Your task to perform on an android device: check out phone information Image 0: 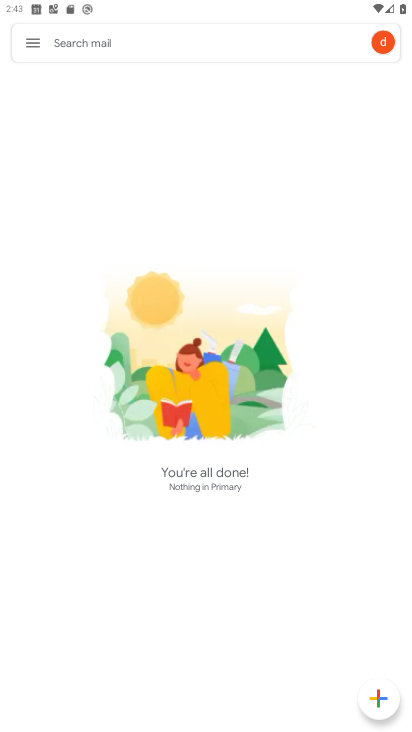
Step 0: press home button
Your task to perform on an android device: check out phone information Image 1: 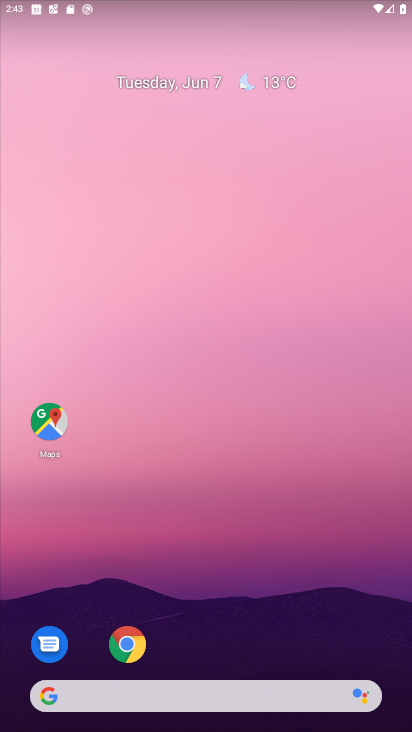
Step 1: click (220, 61)
Your task to perform on an android device: check out phone information Image 2: 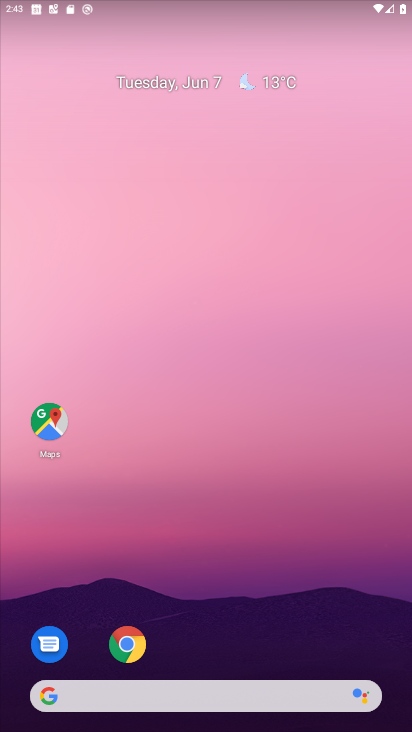
Step 2: drag from (232, 664) to (214, 80)
Your task to perform on an android device: check out phone information Image 3: 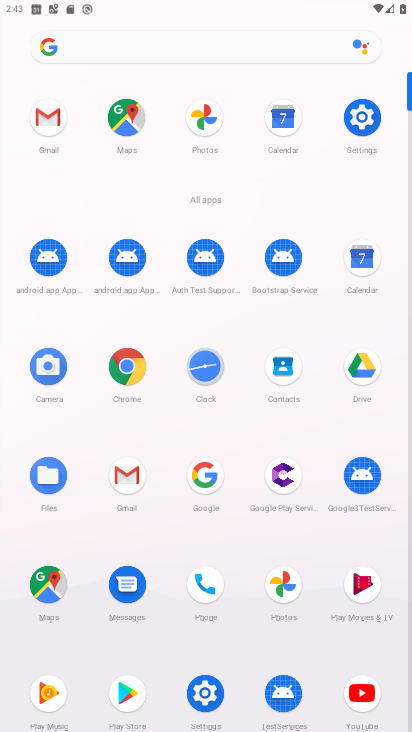
Step 3: click (360, 112)
Your task to perform on an android device: check out phone information Image 4: 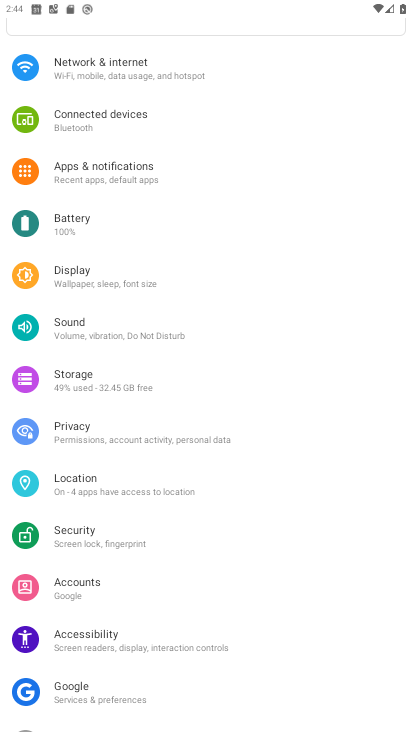
Step 4: drag from (169, 683) to (192, 77)
Your task to perform on an android device: check out phone information Image 5: 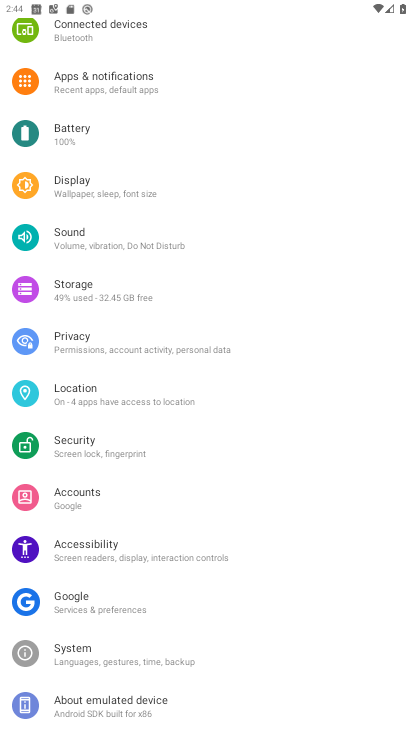
Step 5: click (185, 706)
Your task to perform on an android device: check out phone information Image 6: 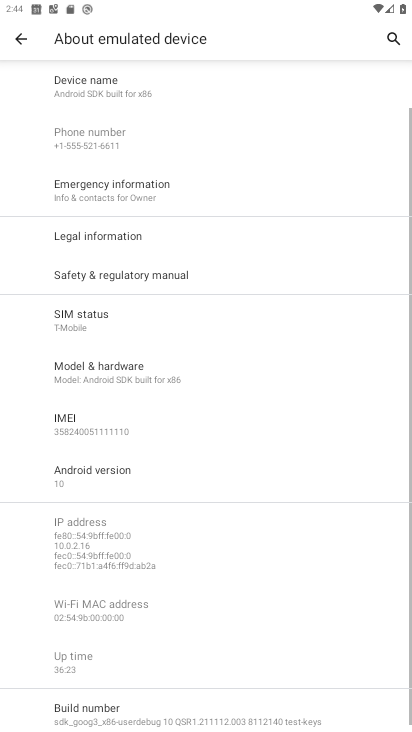
Step 6: task complete